Your task to perform on an android device: check android version Image 0: 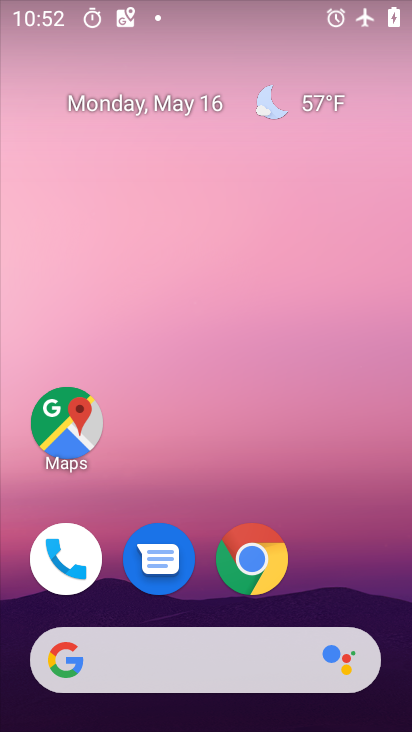
Step 0: drag from (336, 526) to (354, 172)
Your task to perform on an android device: check android version Image 1: 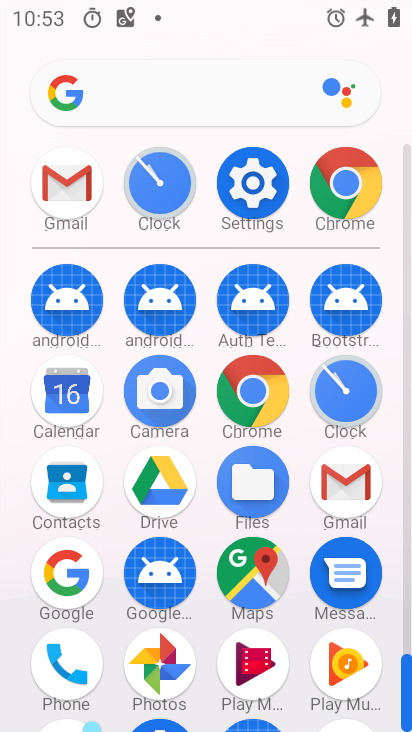
Step 1: click (264, 188)
Your task to perform on an android device: check android version Image 2: 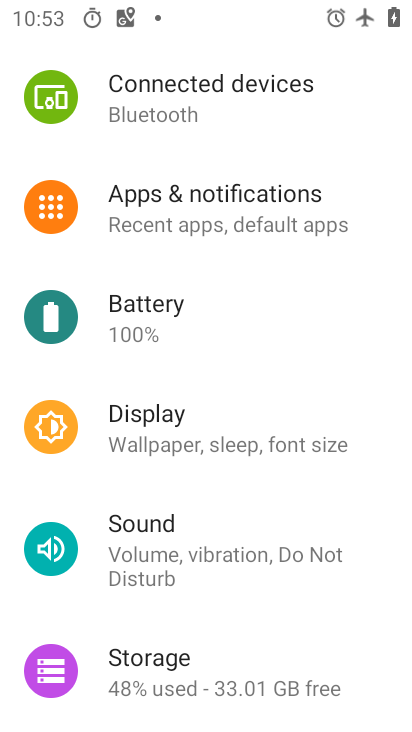
Step 2: drag from (226, 651) to (329, 122)
Your task to perform on an android device: check android version Image 3: 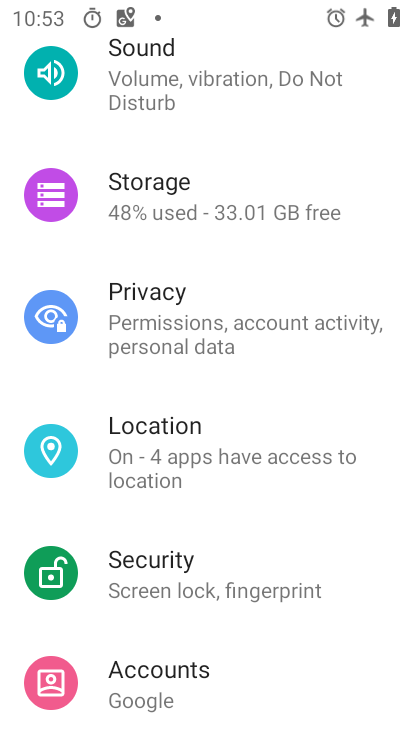
Step 3: drag from (175, 591) to (313, 37)
Your task to perform on an android device: check android version Image 4: 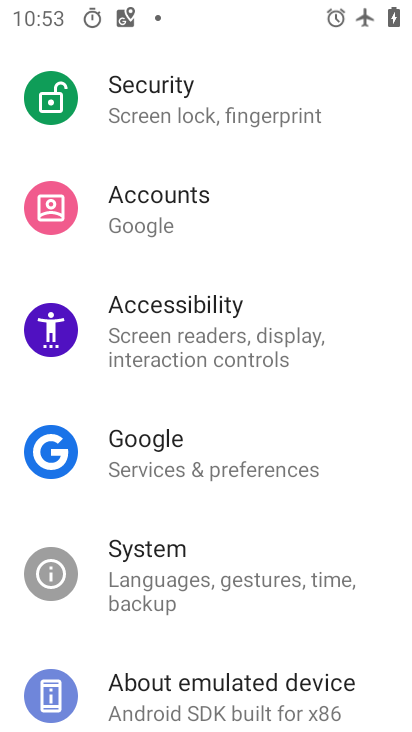
Step 4: drag from (150, 505) to (320, 140)
Your task to perform on an android device: check android version Image 5: 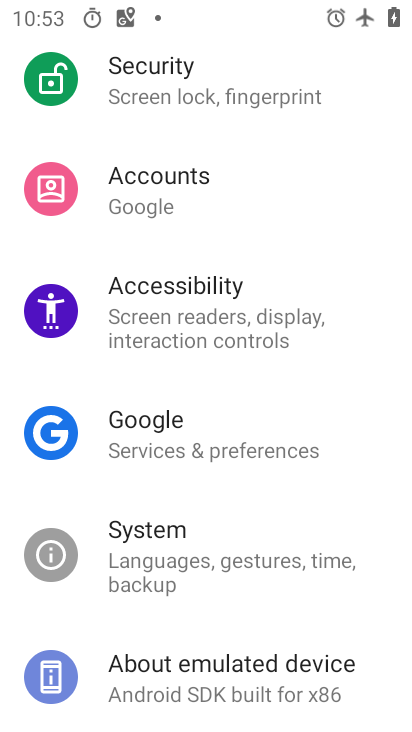
Step 5: click (170, 678)
Your task to perform on an android device: check android version Image 6: 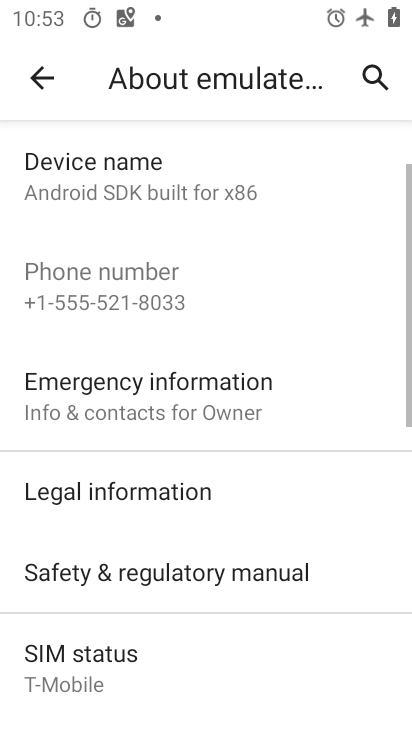
Step 6: drag from (172, 669) to (277, 206)
Your task to perform on an android device: check android version Image 7: 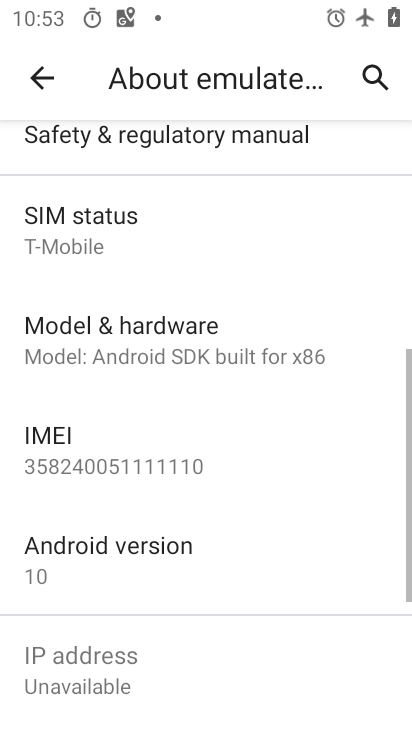
Step 7: drag from (95, 652) to (224, 359)
Your task to perform on an android device: check android version Image 8: 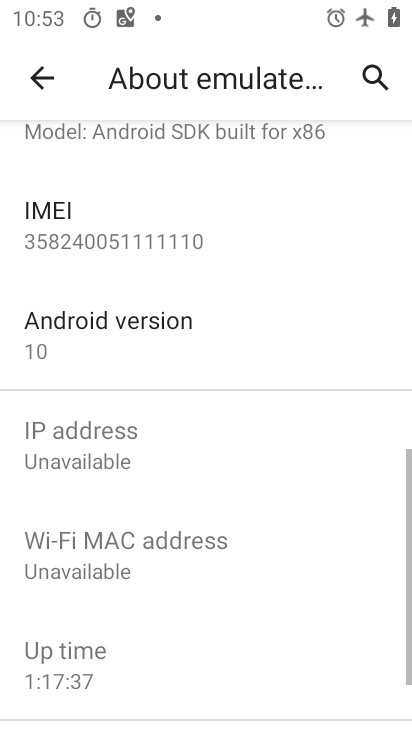
Step 8: click (104, 358)
Your task to perform on an android device: check android version Image 9: 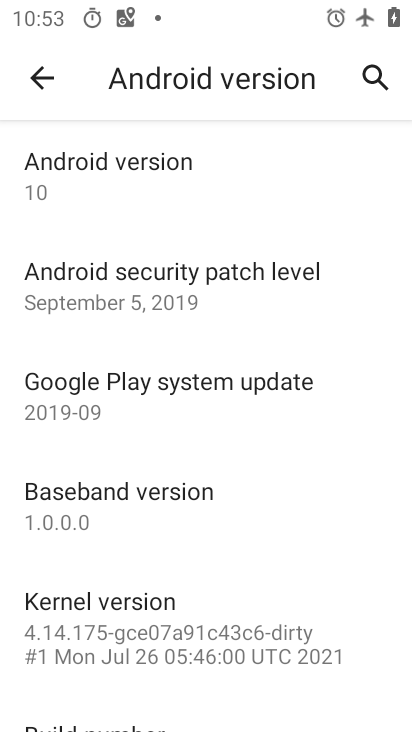
Step 9: click (173, 167)
Your task to perform on an android device: check android version Image 10: 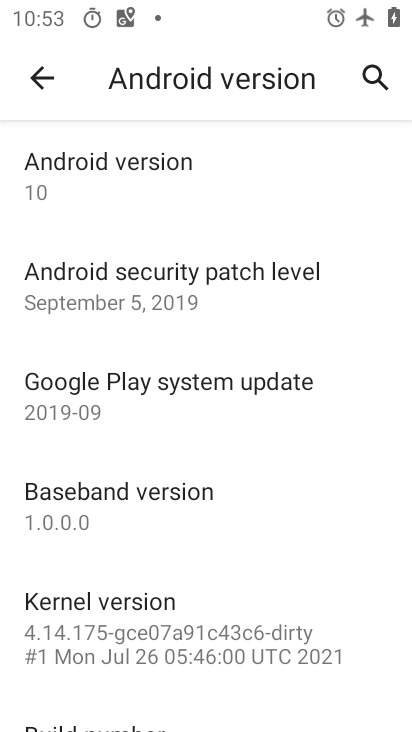
Step 10: task complete